Your task to perform on an android device: Open Amazon Image 0: 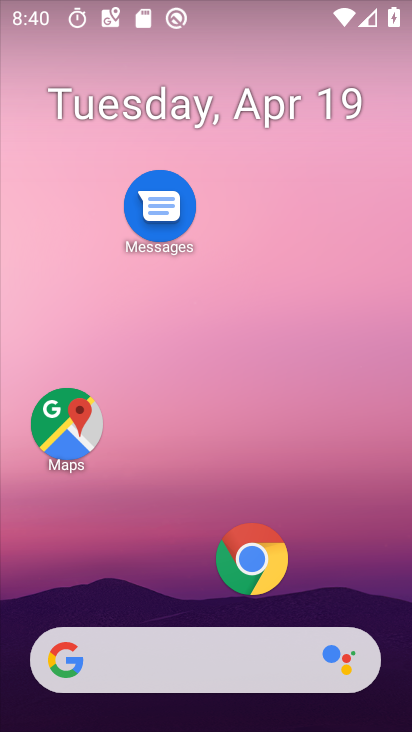
Step 0: click (247, 584)
Your task to perform on an android device: Open Amazon Image 1: 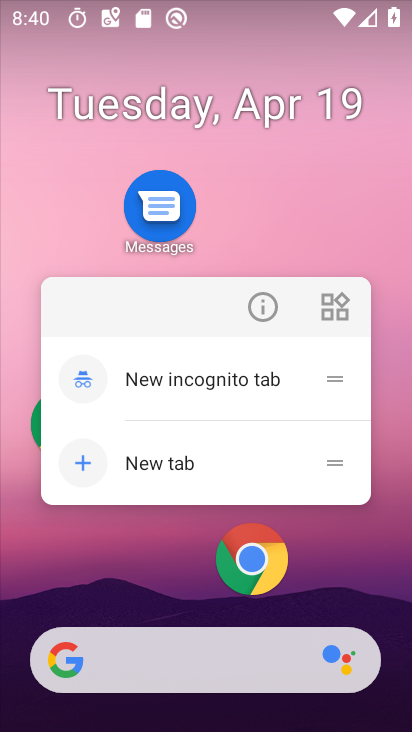
Step 1: click (247, 584)
Your task to perform on an android device: Open Amazon Image 2: 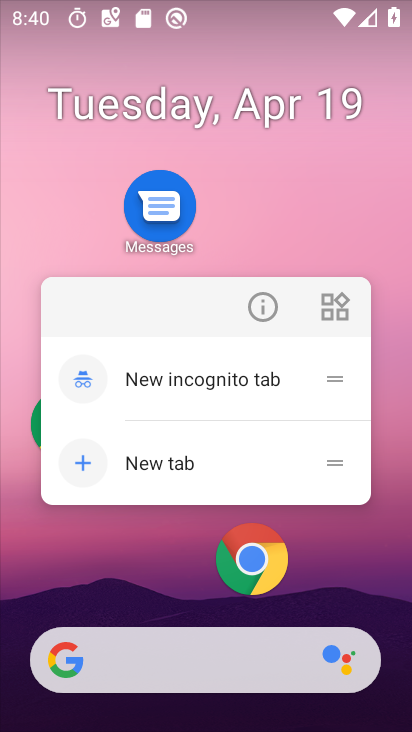
Step 2: click (247, 584)
Your task to perform on an android device: Open Amazon Image 3: 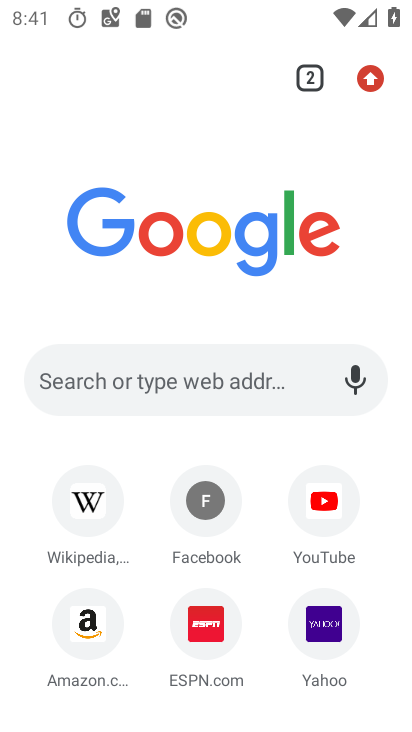
Step 3: click (87, 652)
Your task to perform on an android device: Open Amazon Image 4: 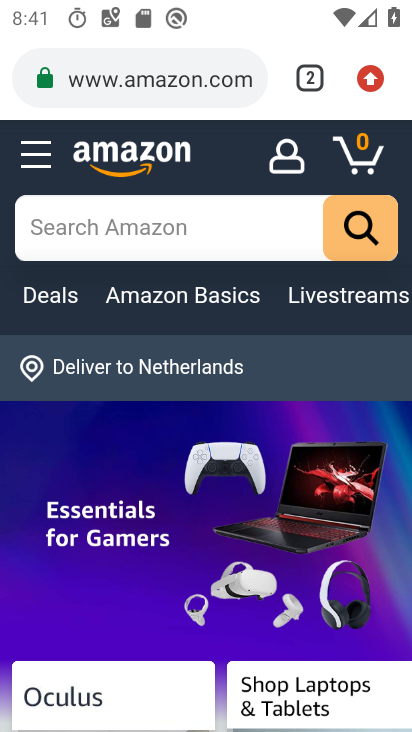
Step 4: task complete